Your task to perform on an android device: Open Google Chrome Image 0: 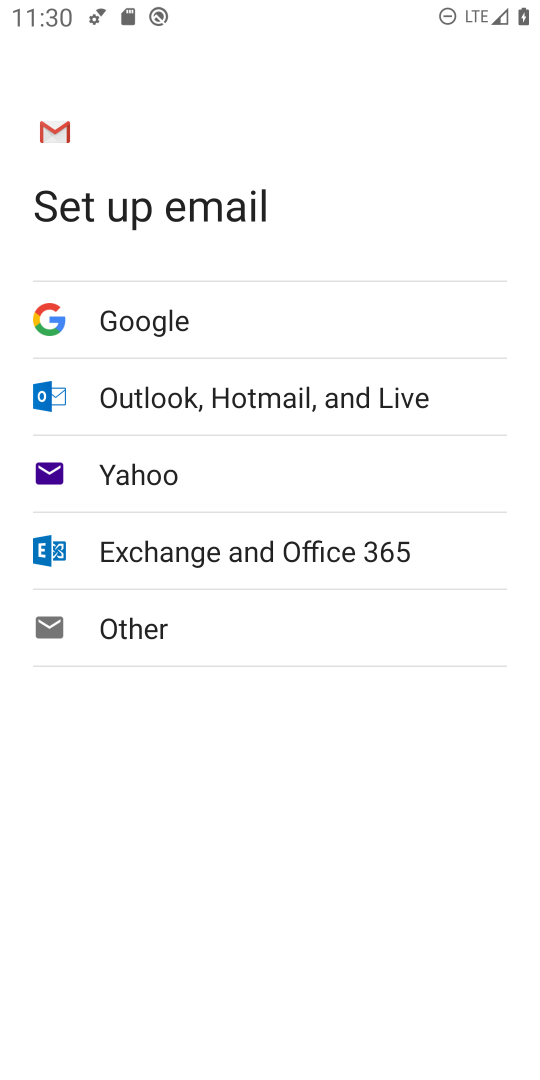
Step 0: press home button
Your task to perform on an android device: Open Google Chrome Image 1: 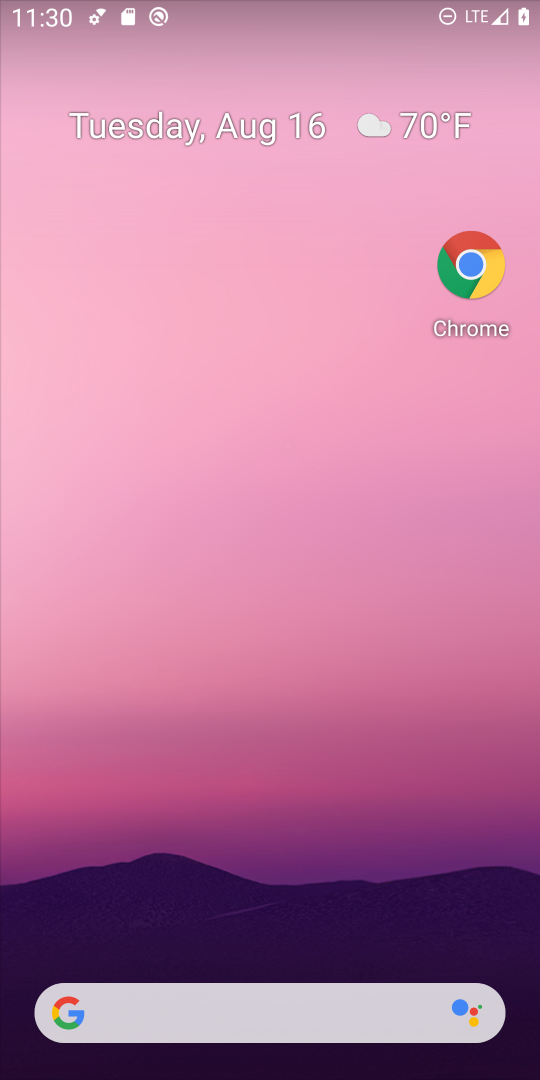
Step 1: drag from (303, 884) to (338, 632)
Your task to perform on an android device: Open Google Chrome Image 2: 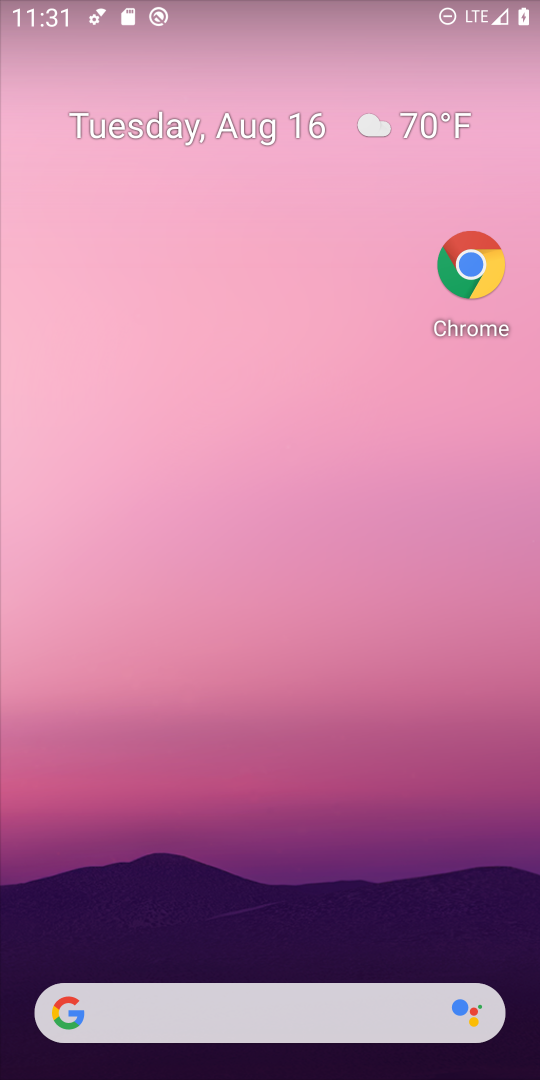
Step 2: click (460, 298)
Your task to perform on an android device: Open Google Chrome Image 3: 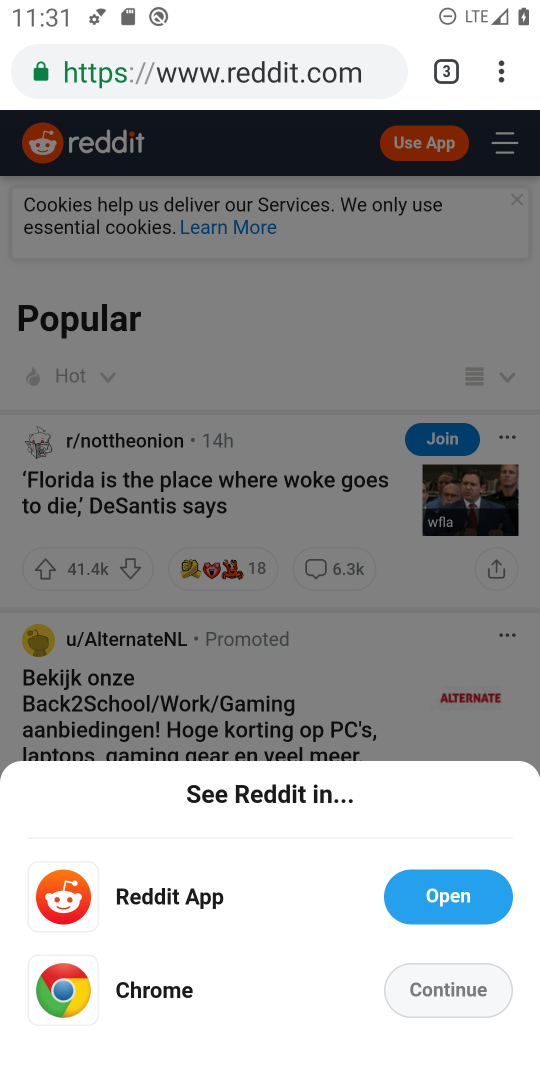
Step 3: task complete